Your task to perform on an android device: Search for vegetarian restaurants on Maps Image 0: 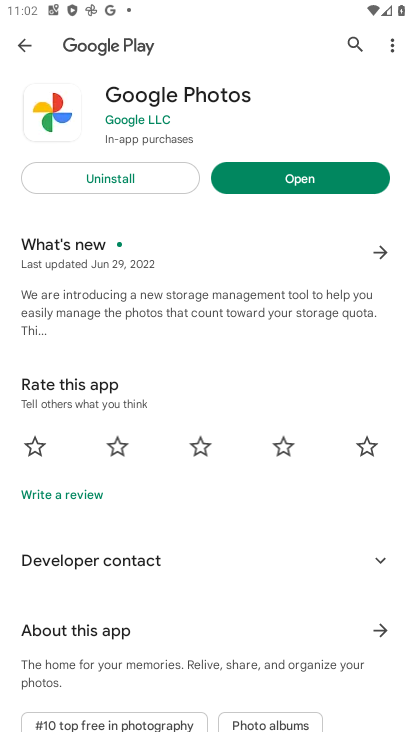
Step 0: press home button
Your task to perform on an android device: Search for vegetarian restaurants on Maps Image 1: 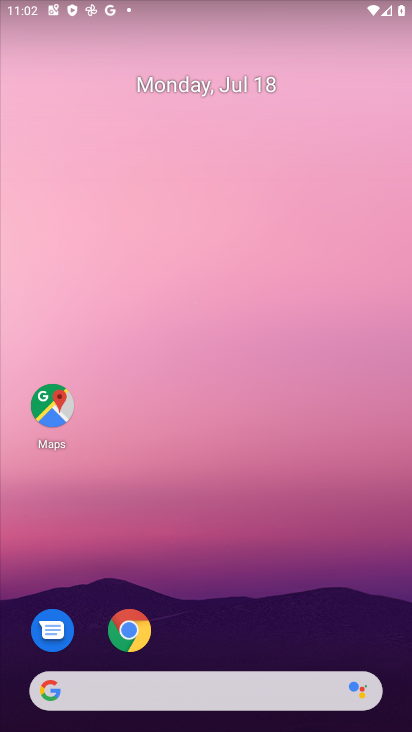
Step 1: drag from (385, 607) to (402, 218)
Your task to perform on an android device: Search for vegetarian restaurants on Maps Image 2: 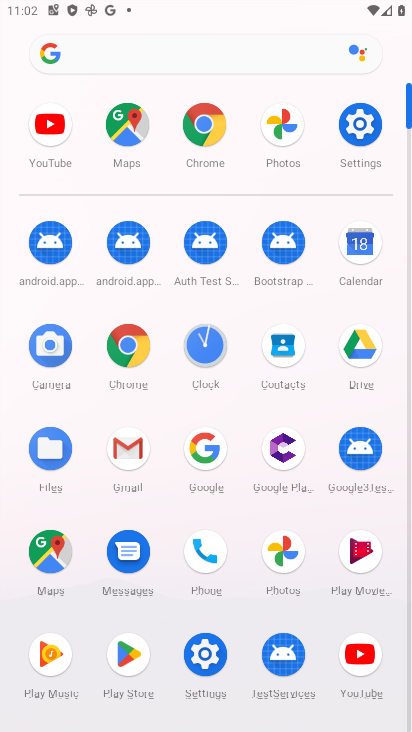
Step 2: click (62, 553)
Your task to perform on an android device: Search for vegetarian restaurants on Maps Image 3: 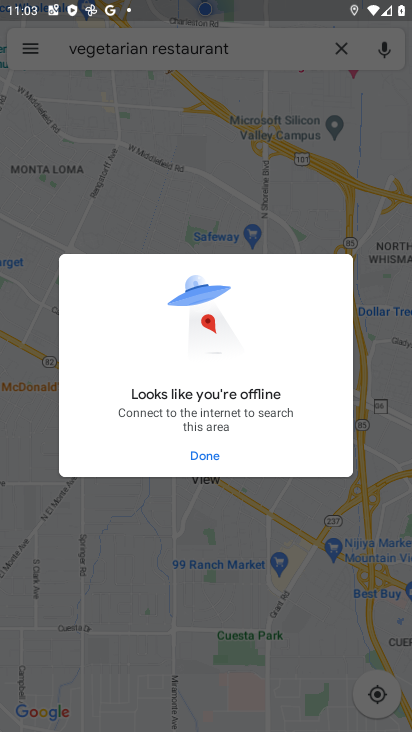
Step 3: press back button
Your task to perform on an android device: Search for vegetarian restaurants on Maps Image 4: 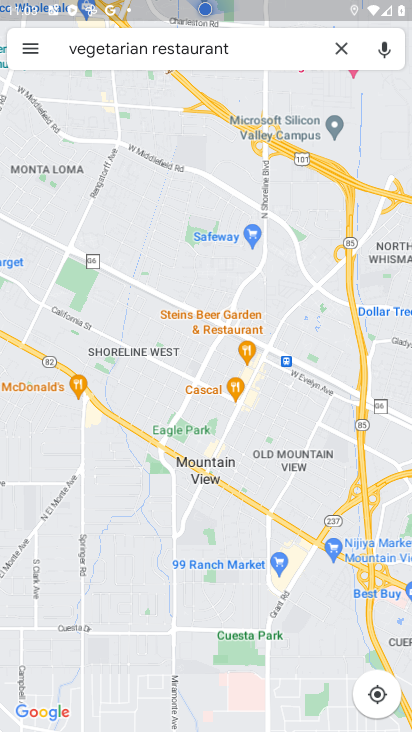
Step 4: click (246, 49)
Your task to perform on an android device: Search for vegetarian restaurants on Maps Image 5: 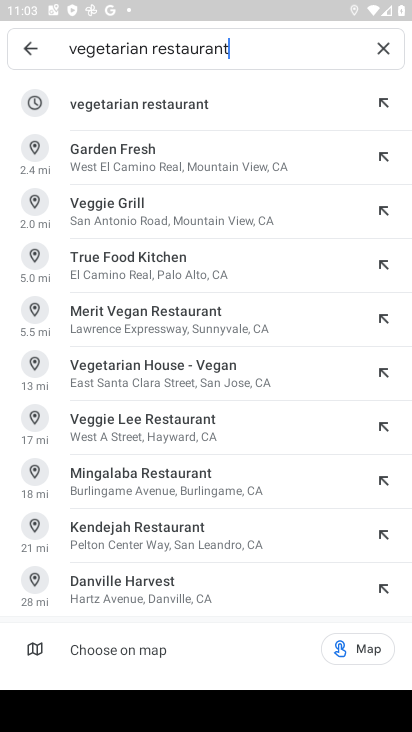
Step 5: click (144, 114)
Your task to perform on an android device: Search for vegetarian restaurants on Maps Image 6: 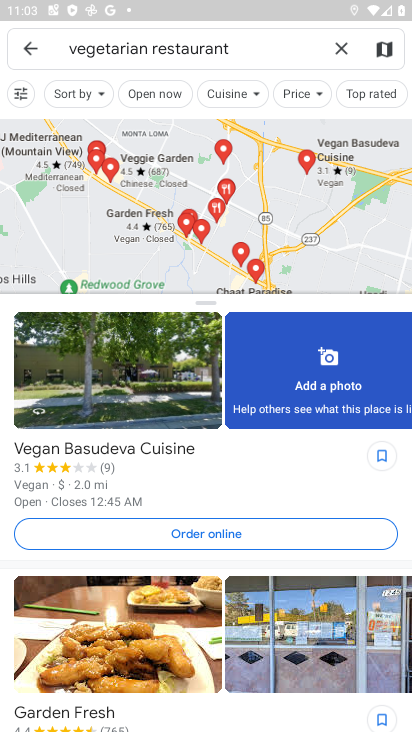
Step 6: task complete